Your task to perform on an android device: add a contact in the contacts app Image 0: 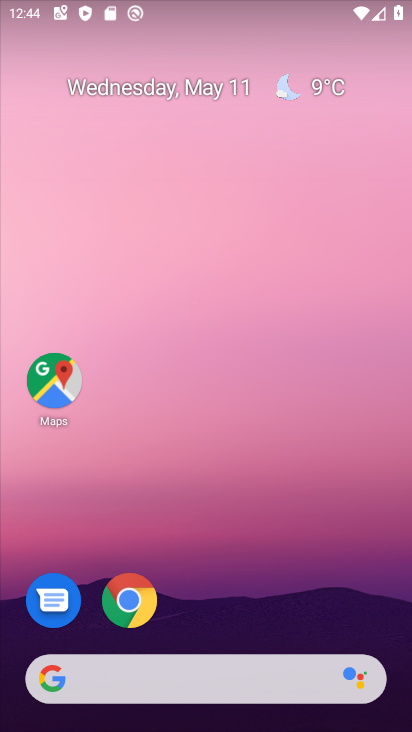
Step 0: drag from (265, 719) to (343, 144)
Your task to perform on an android device: add a contact in the contacts app Image 1: 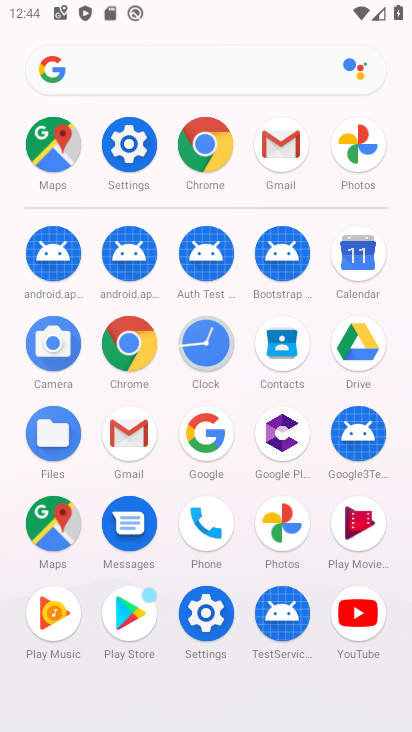
Step 1: click (281, 342)
Your task to perform on an android device: add a contact in the contacts app Image 2: 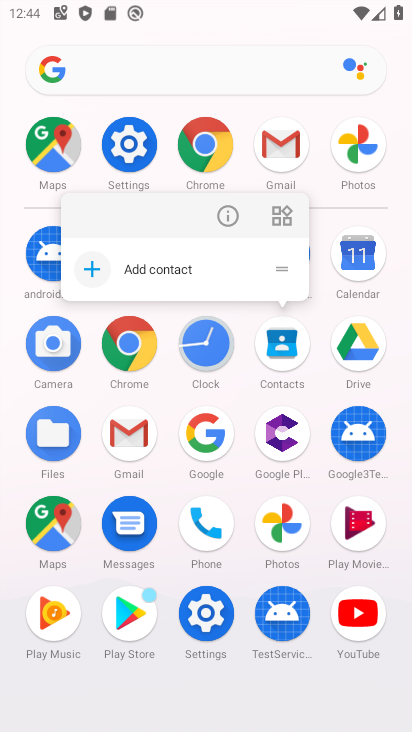
Step 2: click (288, 350)
Your task to perform on an android device: add a contact in the contacts app Image 3: 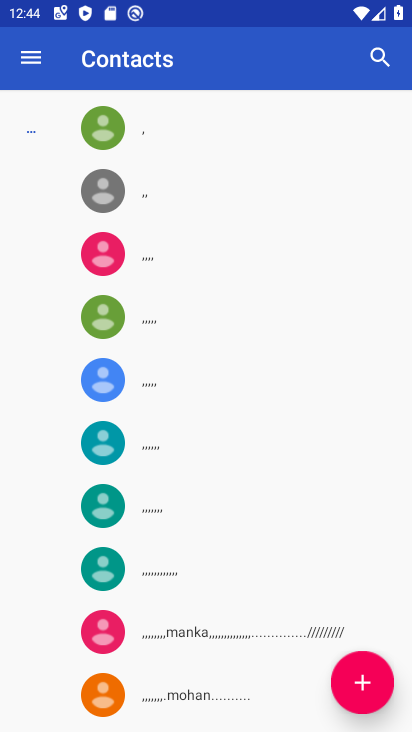
Step 3: click (362, 683)
Your task to perform on an android device: add a contact in the contacts app Image 4: 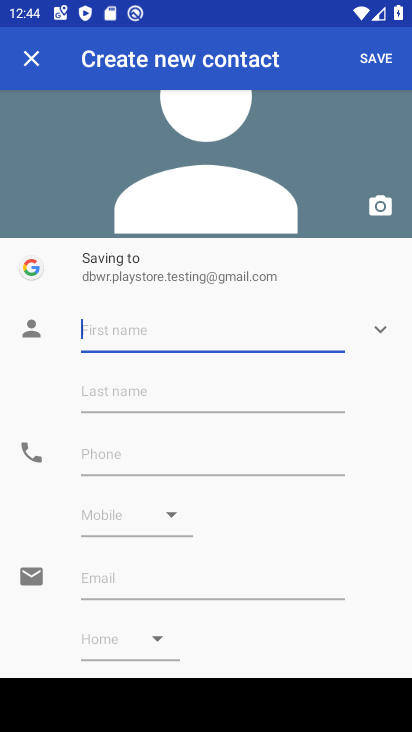
Step 4: type "jkk"
Your task to perform on an android device: add a contact in the contacts app Image 5: 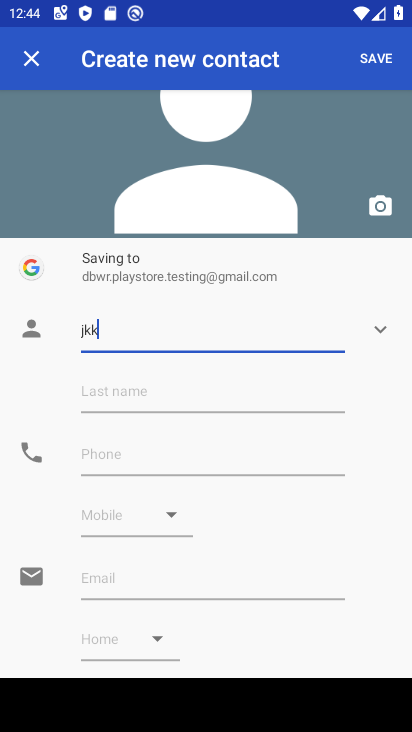
Step 5: click (134, 449)
Your task to perform on an android device: add a contact in the contacts app Image 6: 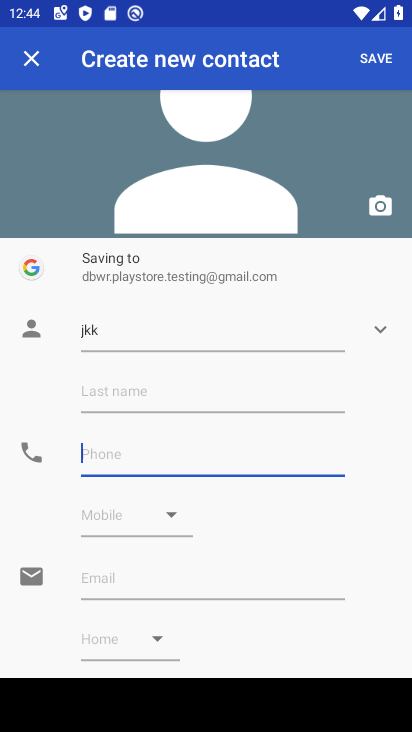
Step 6: type "7787"
Your task to perform on an android device: add a contact in the contacts app Image 7: 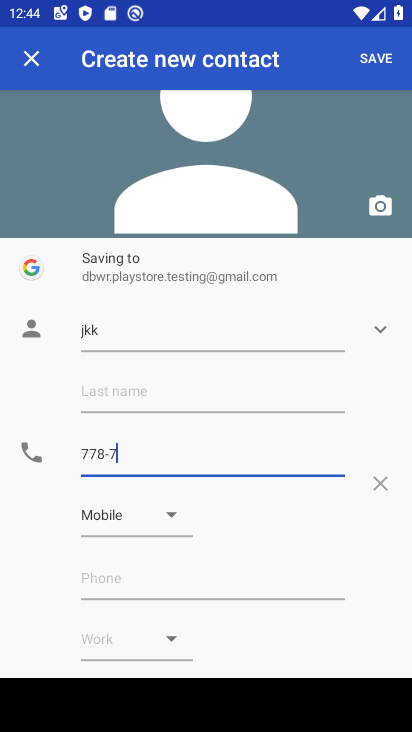
Step 7: click (375, 58)
Your task to perform on an android device: add a contact in the contacts app Image 8: 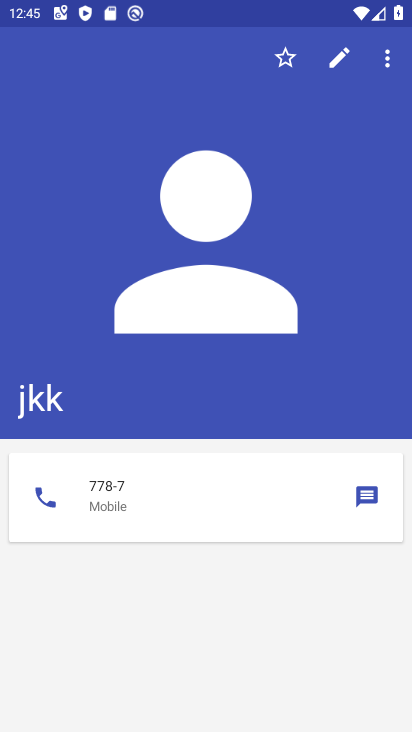
Step 8: task complete